Your task to perform on an android device: change the clock display to analog Image 0: 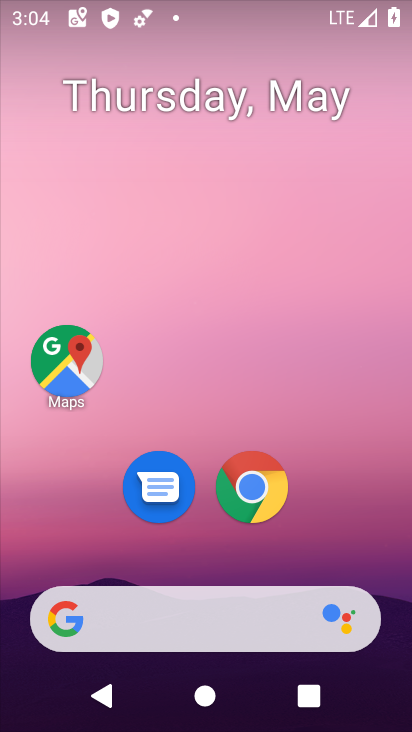
Step 0: drag from (243, 632) to (235, 86)
Your task to perform on an android device: change the clock display to analog Image 1: 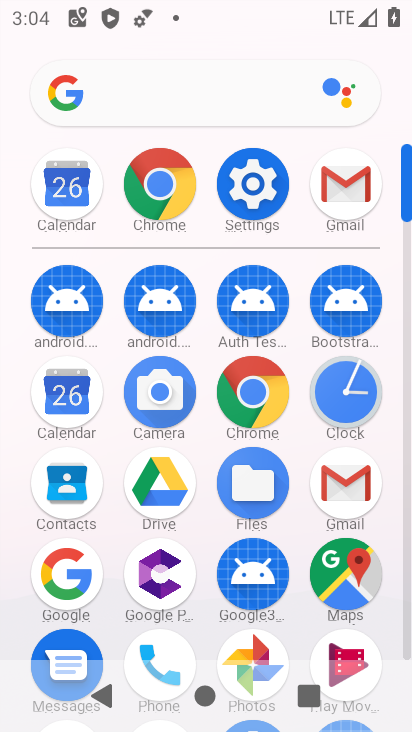
Step 1: click (344, 401)
Your task to perform on an android device: change the clock display to analog Image 2: 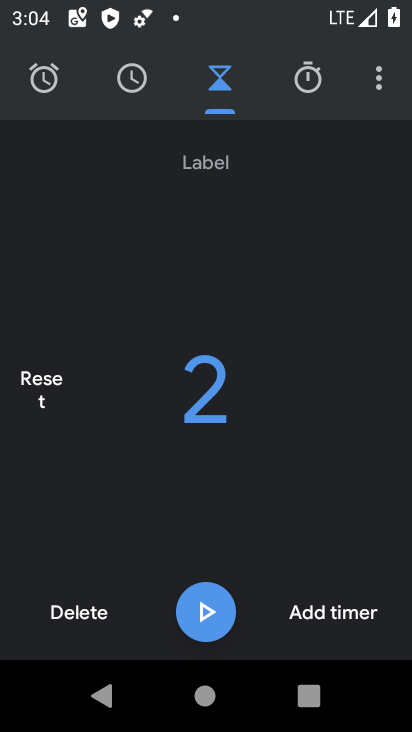
Step 2: click (379, 94)
Your task to perform on an android device: change the clock display to analog Image 3: 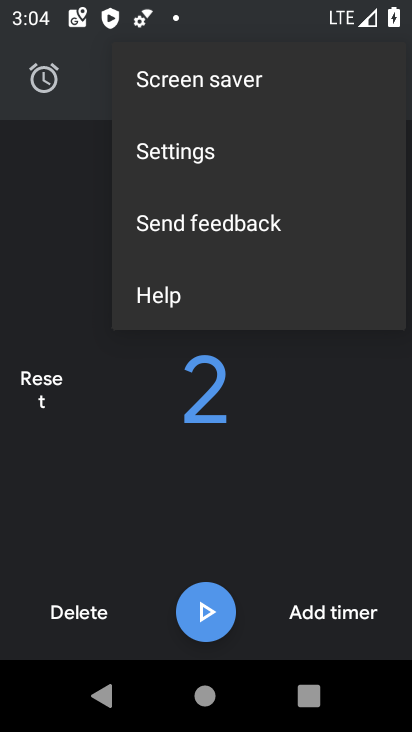
Step 3: click (181, 167)
Your task to perform on an android device: change the clock display to analog Image 4: 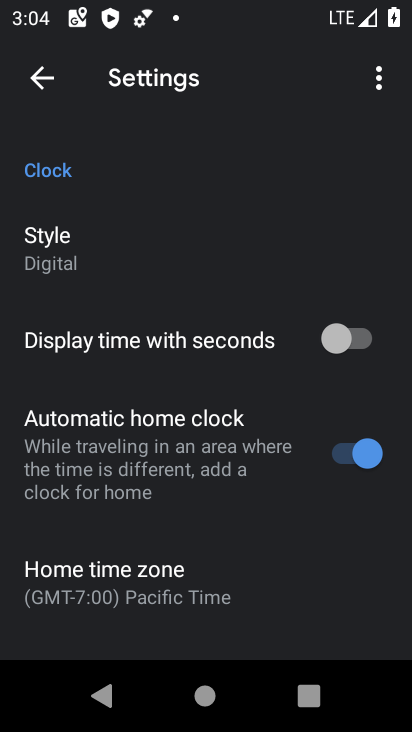
Step 4: click (163, 253)
Your task to perform on an android device: change the clock display to analog Image 5: 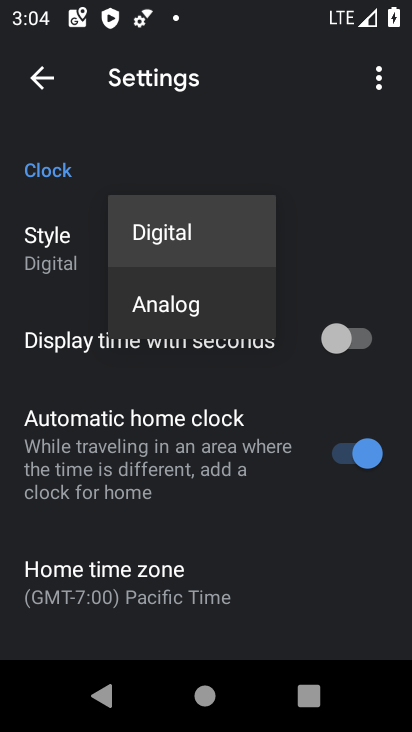
Step 5: click (192, 306)
Your task to perform on an android device: change the clock display to analog Image 6: 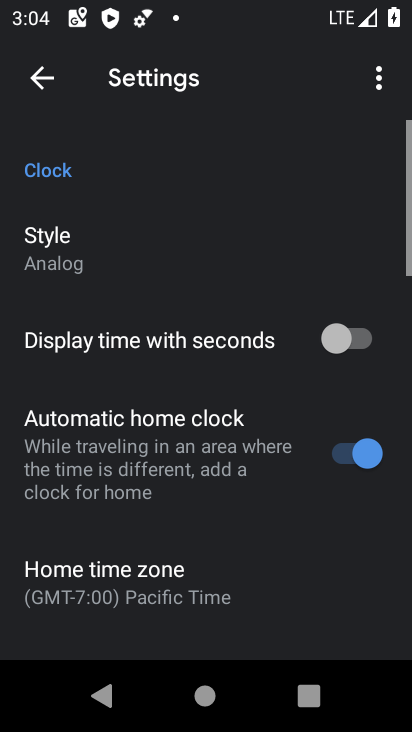
Step 6: task complete